Your task to perform on an android device: change the clock display to analog Image 0: 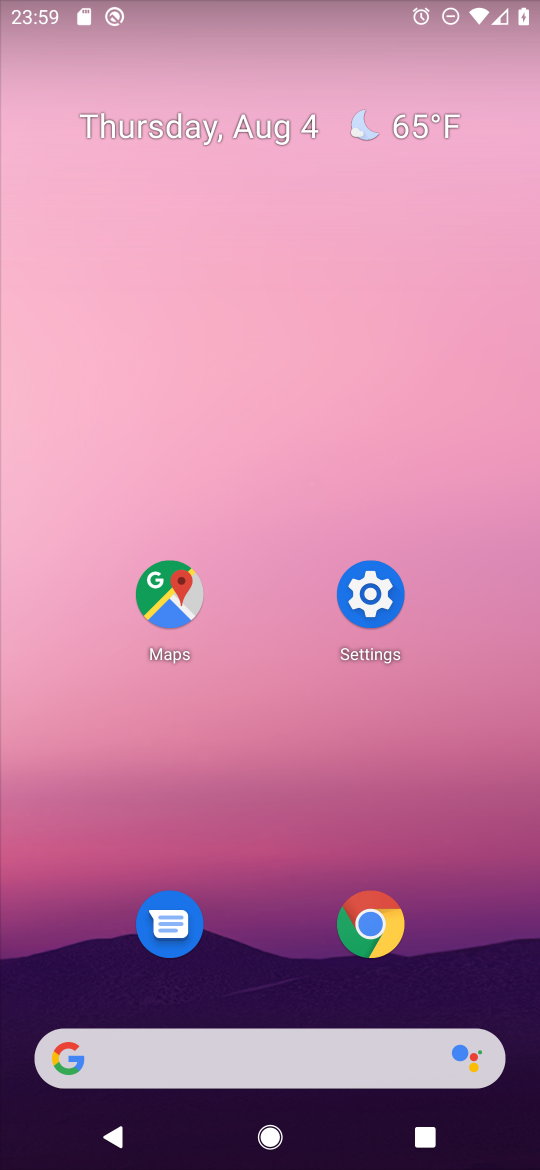
Step 0: drag from (283, 1060) to (316, 174)
Your task to perform on an android device: change the clock display to analog Image 1: 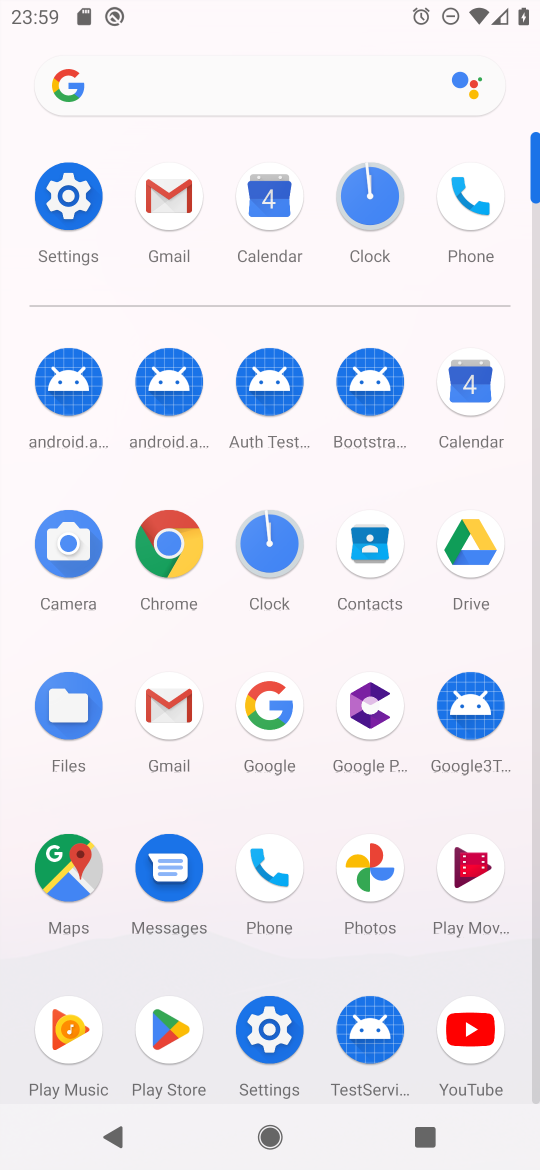
Step 1: click (364, 209)
Your task to perform on an android device: change the clock display to analog Image 2: 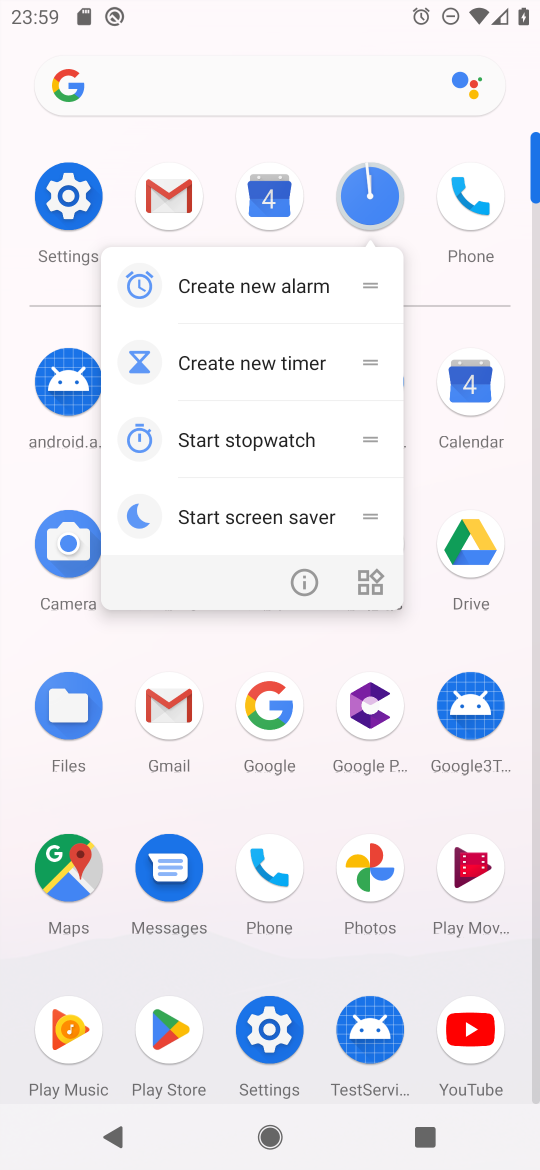
Step 2: click (385, 199)
Your task to perform on an android device: change the clock display to analog Image 3: 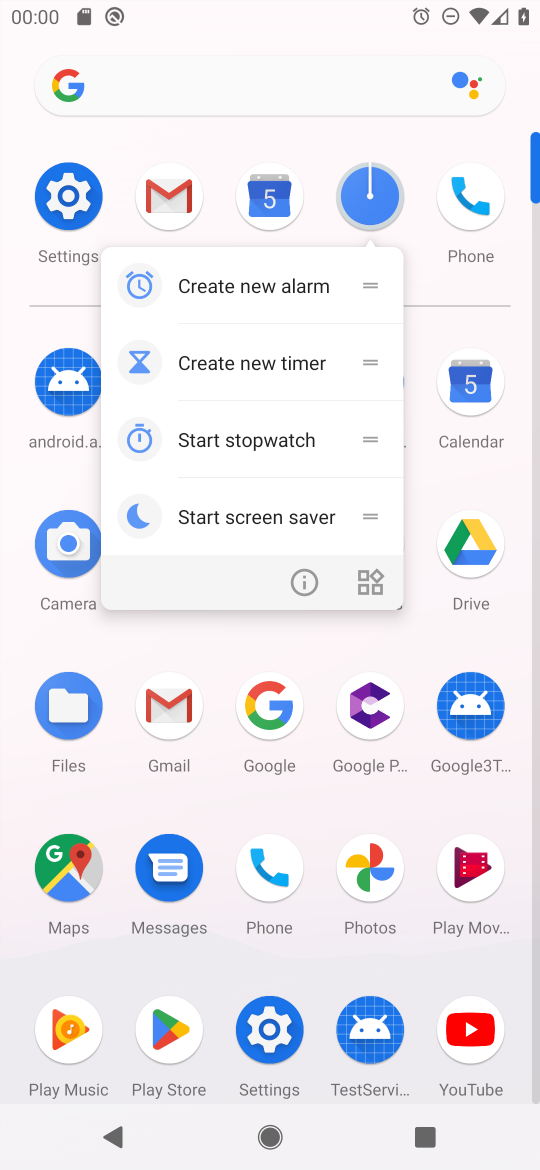
Step 3: click (391, 202)
Your task to perform on an android device: change the clock display to analog Image 4: 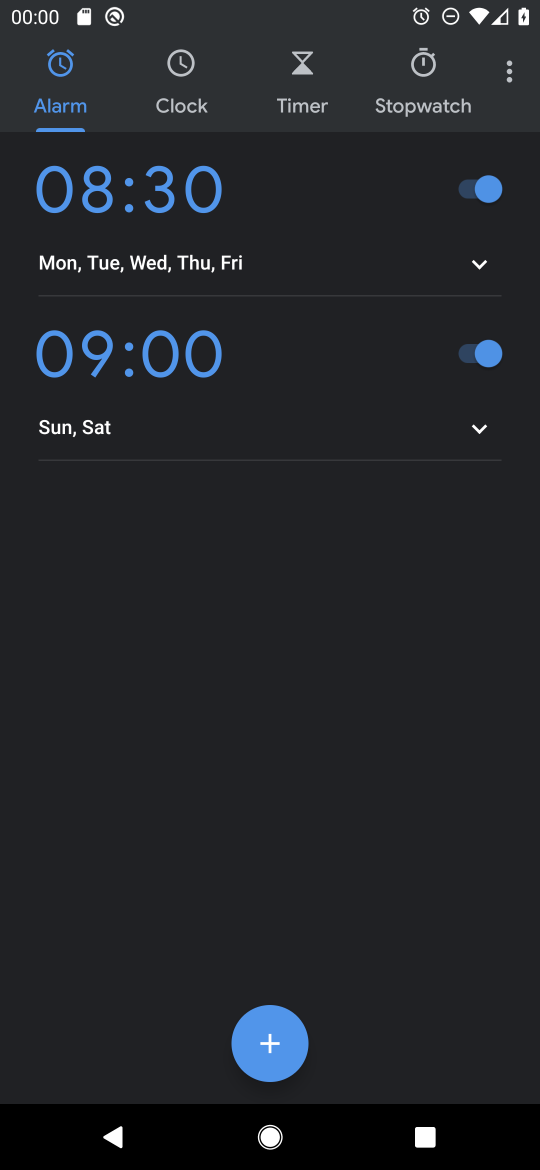
Step 4: click (504, 84)
Your task to perform on an android device: change the clock display to analog Image 5: 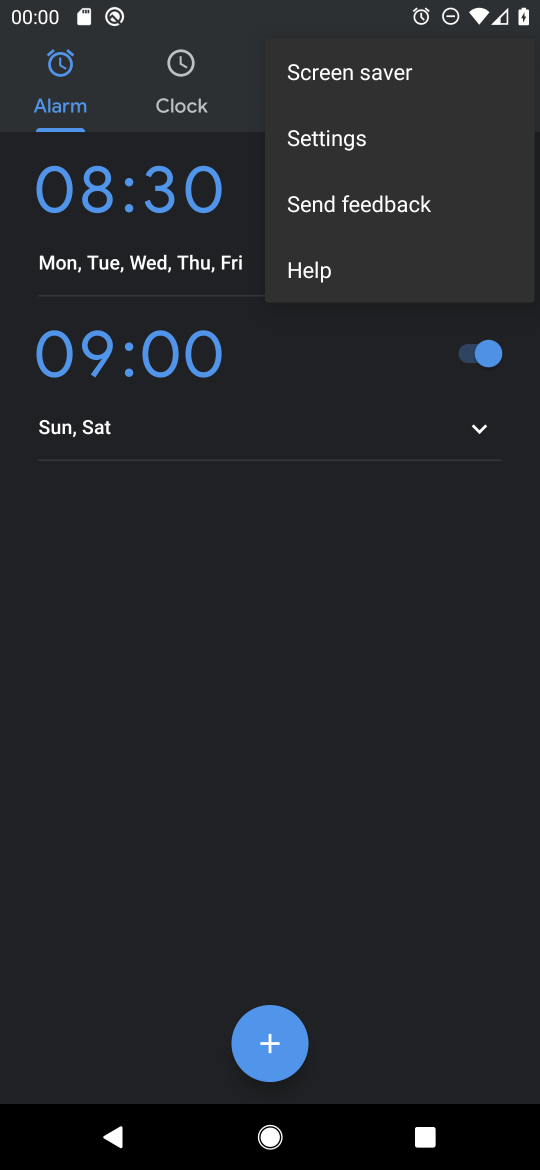
Step 5: click (366, 132)
Your task to perform on an android device: change the clock display to analog Image 6: 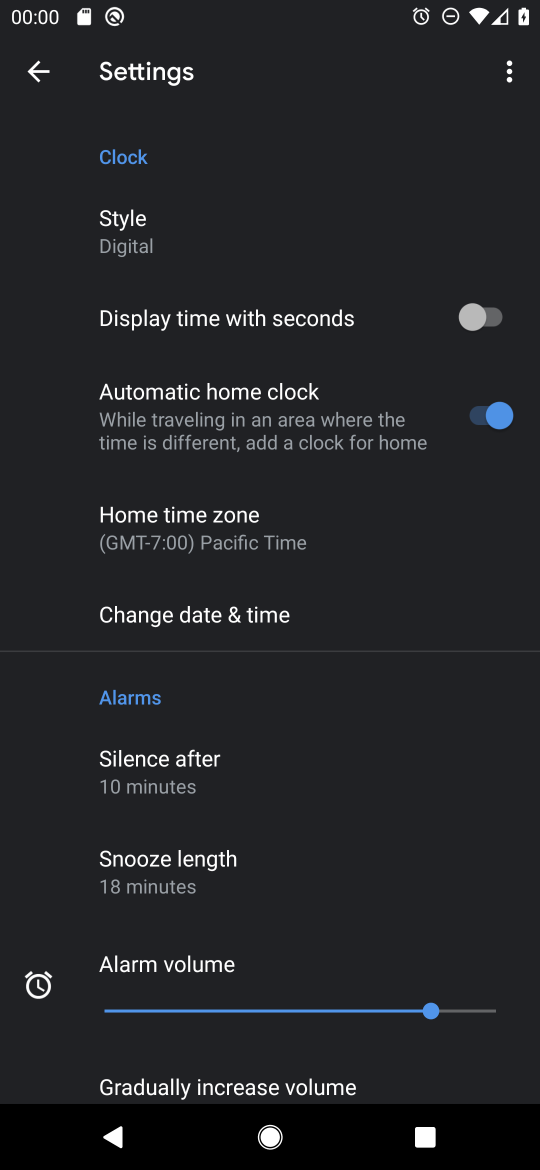
Step 6: click (136, 226)
Your task to perform on an android device: change the clock display to analog Image 7: 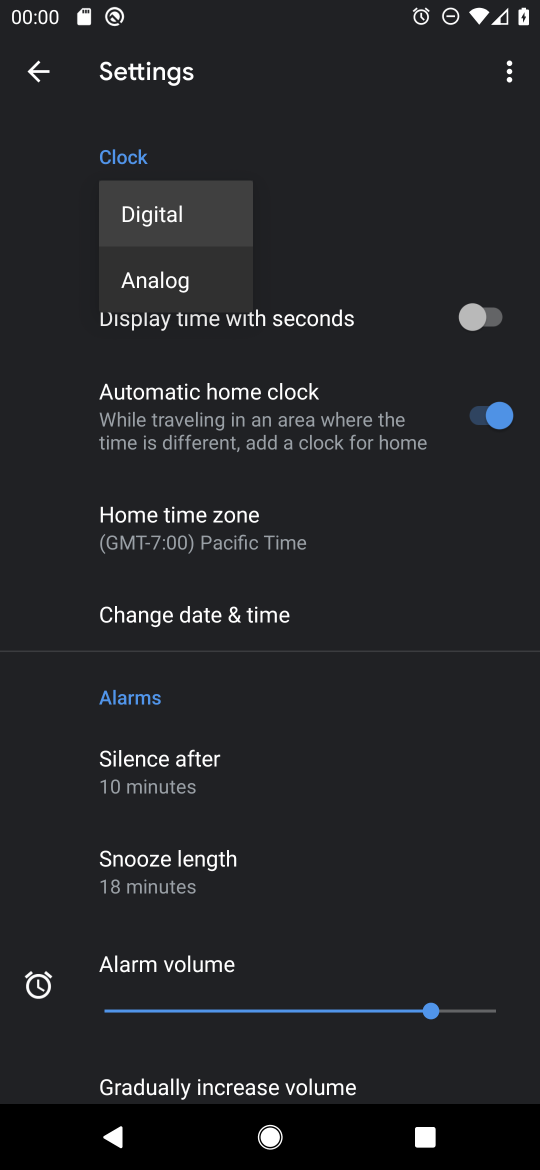
Step 7: click (156, 289)
Your task to perform on an android device: change the clock display to analog Image 8: 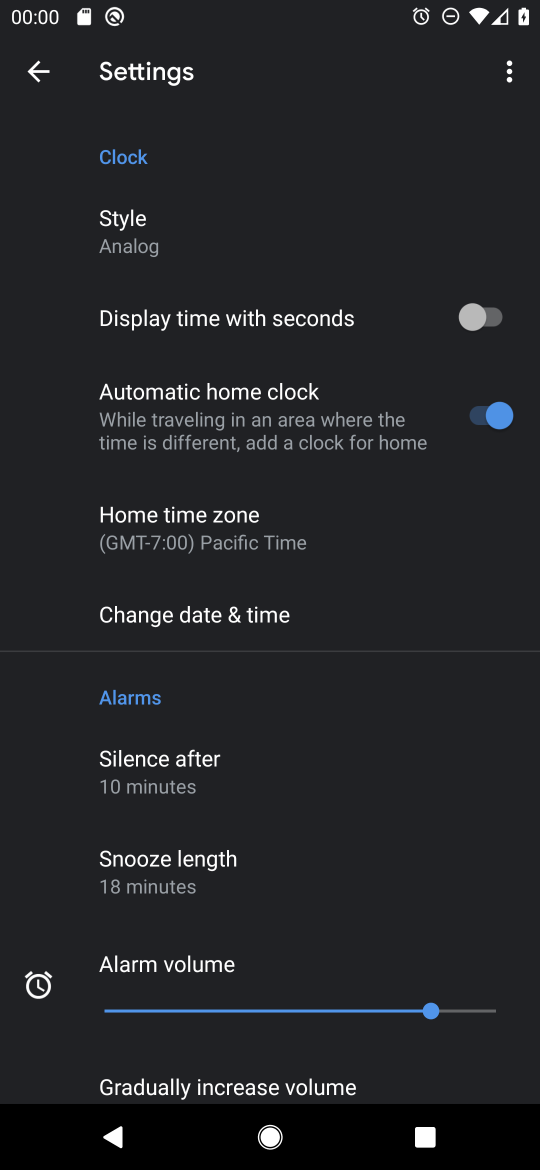
Step 8: task complete